Your task to perform on an android device: toggle priority inbox in the gmail app Image 0: 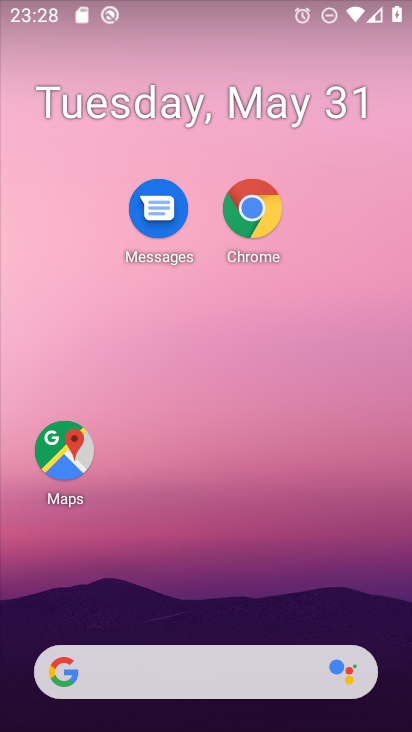
Step 0: press home button
Your task to perform on an android device: toggle priority inbox in the gmail app Image 1: 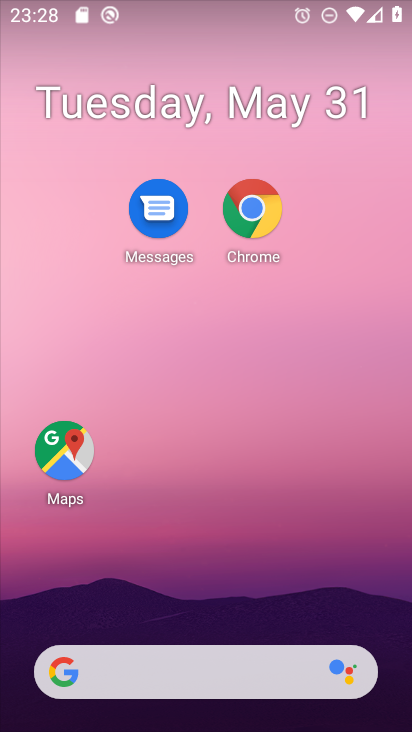
Step 1: drag from (207, 615) to (224, 37)
Your task to perform on an android device: toggle priority inbox in the gmail app Image 2: 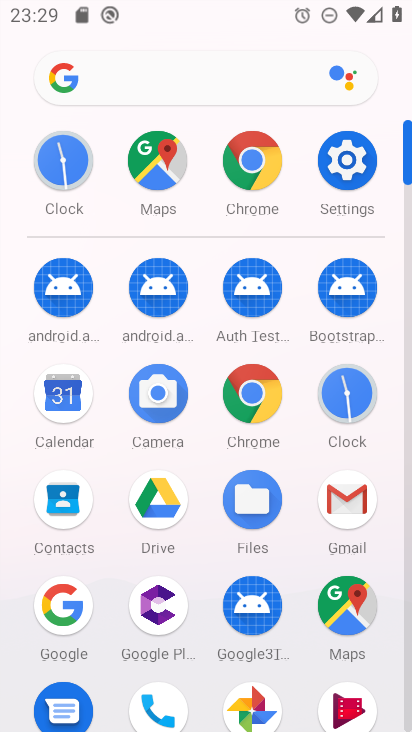
Step 2: click (344, 487)
Your task to perform on an android device: toggle priority inbox in the gmail app Image 3: 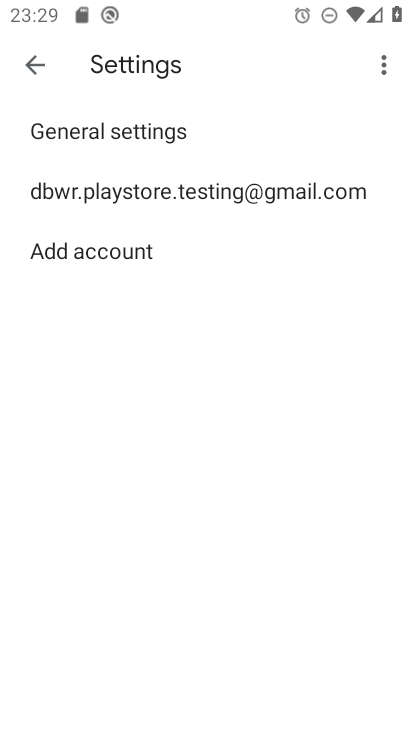
Step 3: click (374, 185)
Your task to perform on an android device: toggle priority inbox in the gmail app Image 4: 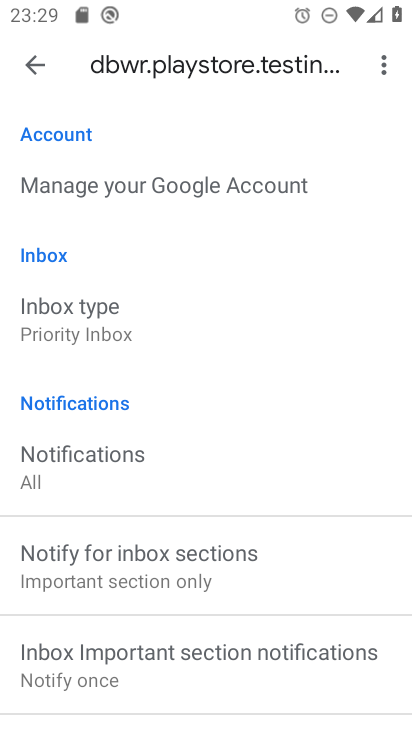
Step 4: click (155, 313)
Your task to perform on an android device: toggle priority inbox in the gmail app Image 5: 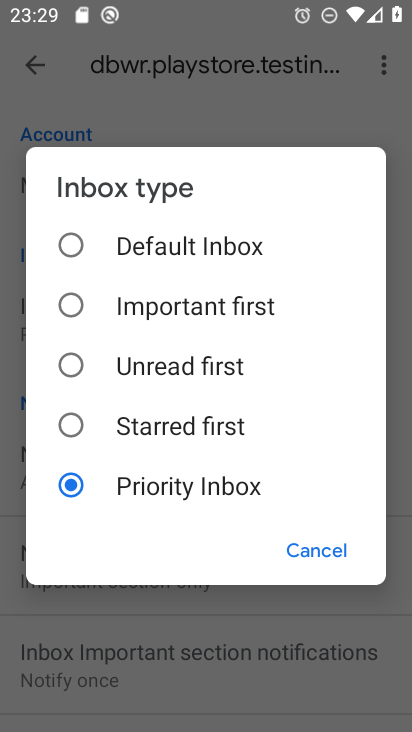
Step 5: task complete